Your task to perform on an android device: Open Chrome and go to settings Image 0: 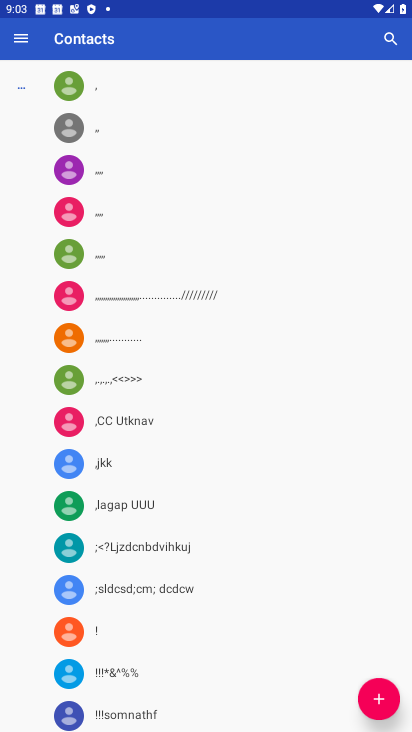
Step 0: drag from (212, 615) to (181, 0)
Your task to perform on an android device: Open Chrome and go to settings Image 1: 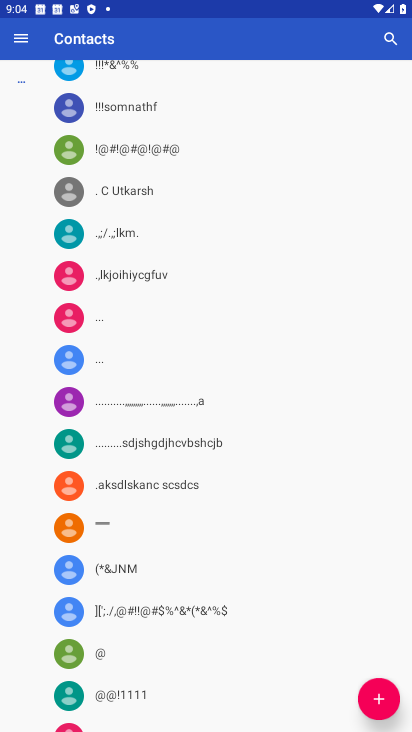
Step 1: click (218, 603)
Your task to perform on an android device: Open Chrome and go to settings Image 2: 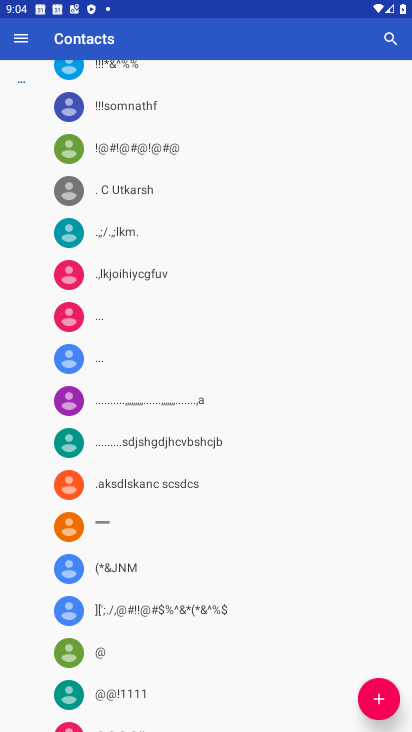
Step 2: drag from (233, 641) to (271, 380)
Your task to perform on an android device: Open Chrome and go to settings Image 3: 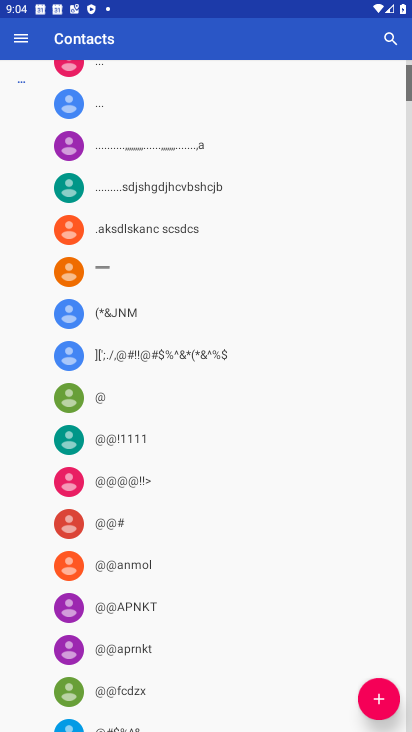
Step 3: press home button
Your task to perform on an android device: Open Chrome and go to settings Image 4: 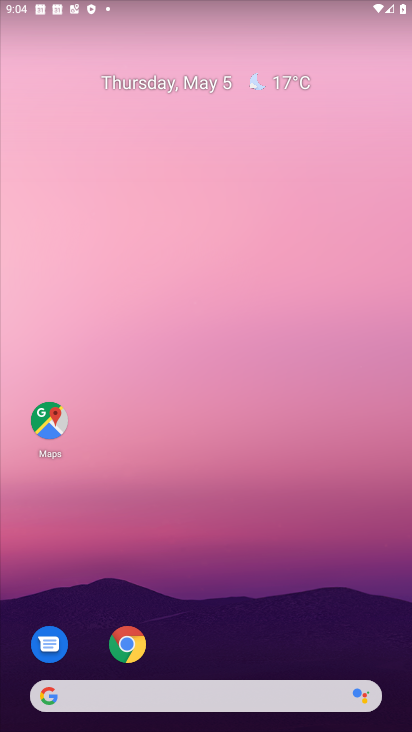
Step 4: drag from (192, 567) to (196, 264)
Your task to perform on an android device: Open Chrome and go to settings Image 5: 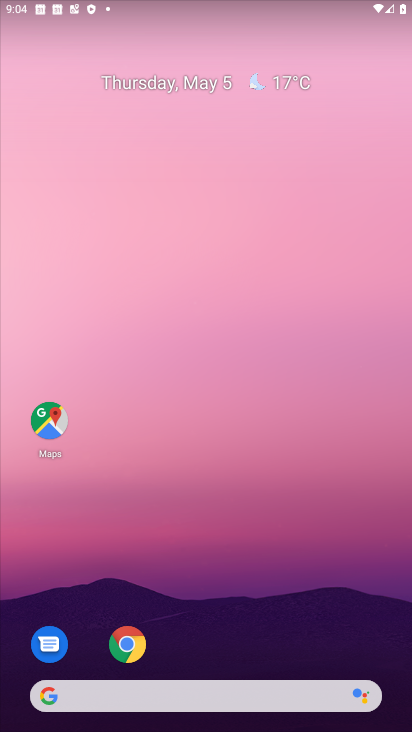
Step 5: drag from (216, 629) to (290, 339)
Your task to perform on an android device: Open Chrome and go to settings Image 6: 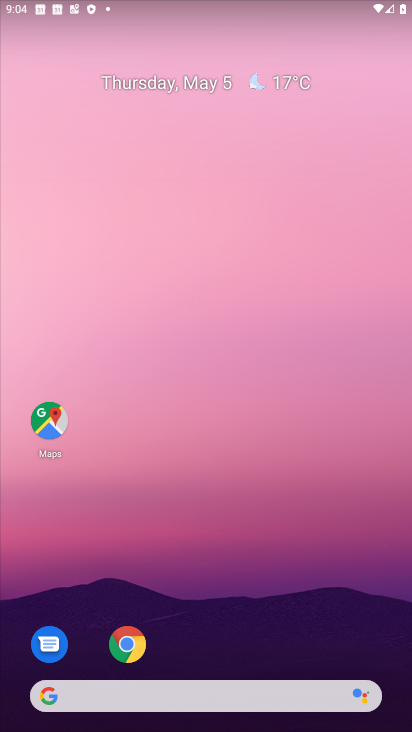
Step 6: drag from (198, 575) to (244, 203)
Your task to perform on an android device: Open Chrome and go to settings Image 7: 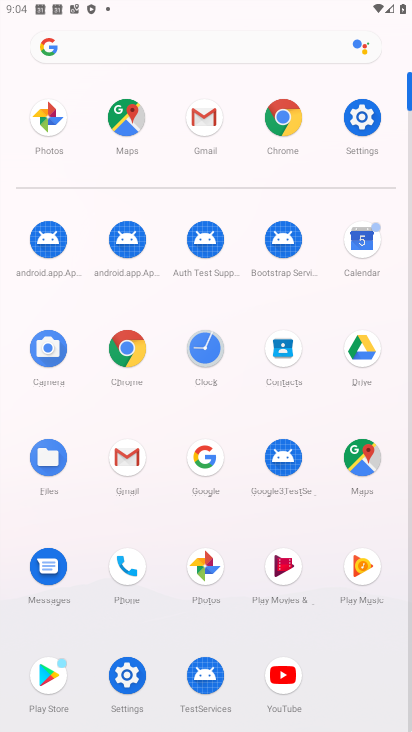
Step 7: click (292, 125)
Your task to perform on an android device: Open Chrome and go to settings Image 8: 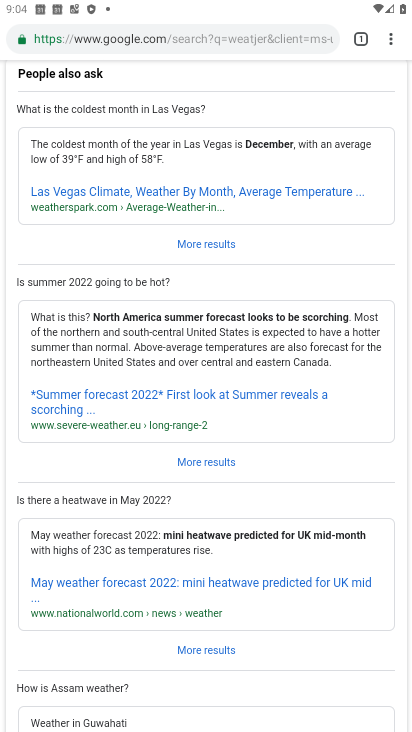
Step 8: drag from (256, 669) to (254, 282)
Your task to perform on an android device: Open Chrome and go to settings Image 9: 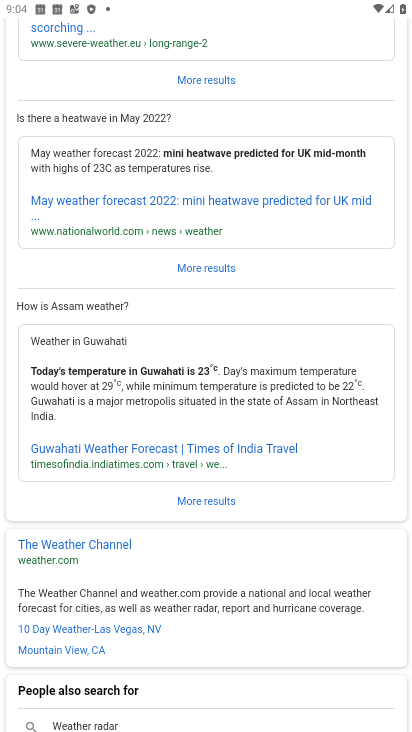
Step 9: drag from (240, 126) to (259, 488)
Your task to perform on an android device: Open Chrome and go to settings Image 10: 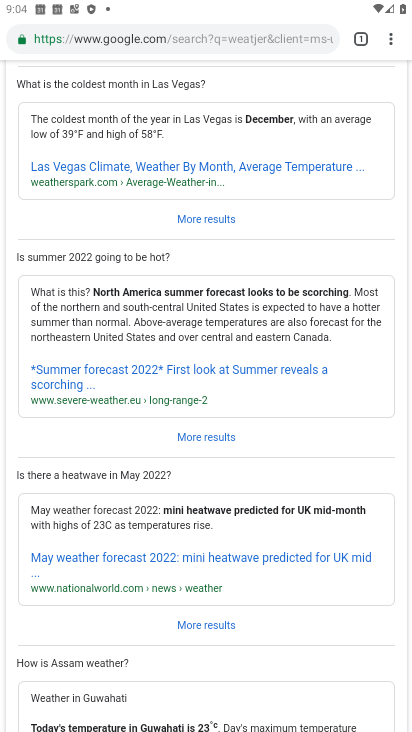
Step 10: drag from (166, 160) to (234, 655)
Your task to perform on an android device: Open Chrome and go to settings Image 11: 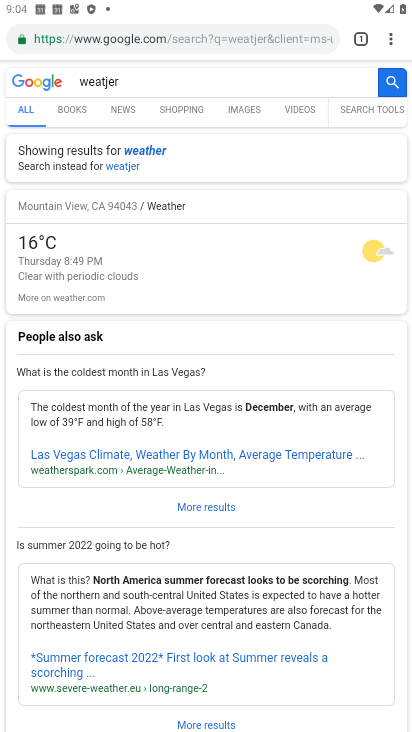
Step 11: click (391, 42)
Your task to perform on an android device: Open Chrome and go to settings Image 12: 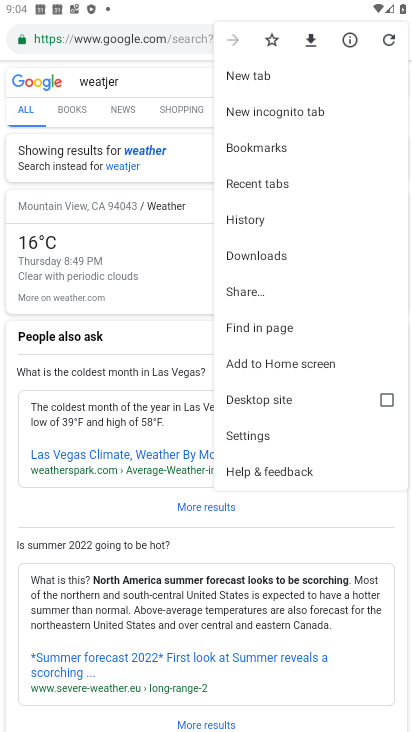
Step 12: click (269, 430)
Your task to perform on an android device: Open Chrome and go to settings Image 13: 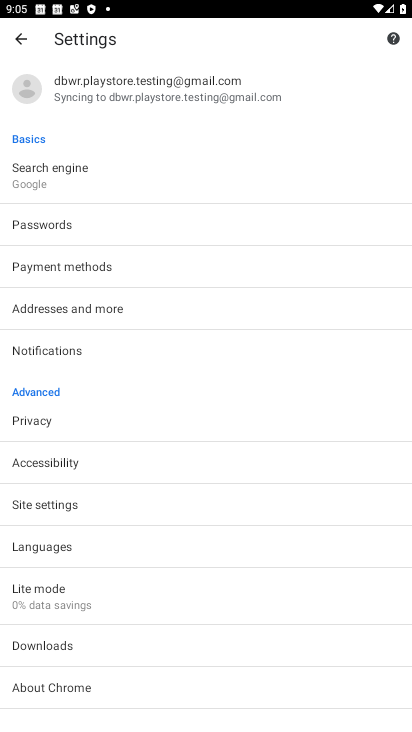
Step 13: drag from (166, 685) to (196, 422)
Your task to perform on an android device: Open Chrome and go to settings Image 14: 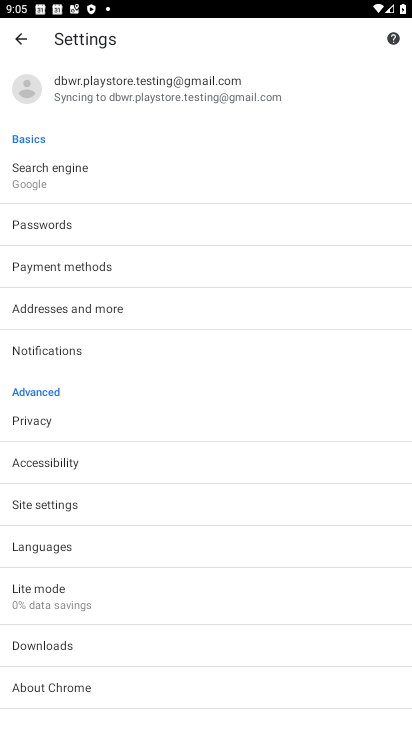
Step 14: click (54, 510)
Your task to perform on an android device: Open Chrome and go to settings Image 15: 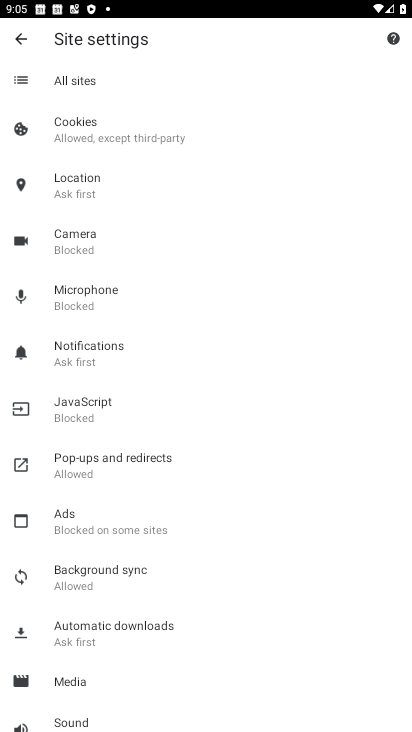
Step 15: task complete